Your task to perform on an android device: Check the new Jordans on Nike. Image 0: 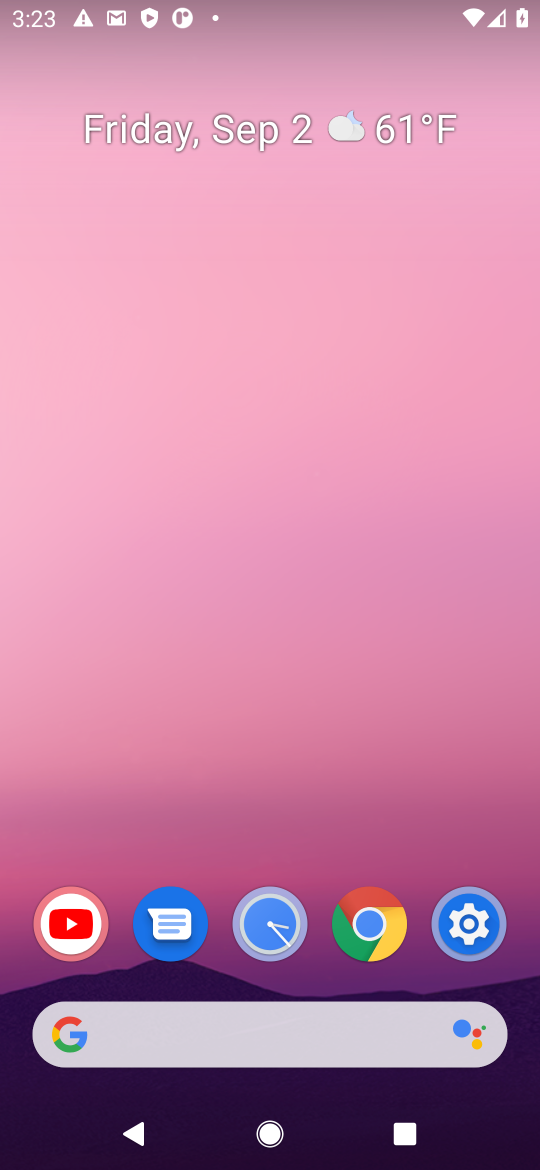
Step 0: press home button
Your task to perform on an android device: Check the new Jordans on Nike. Image 1: 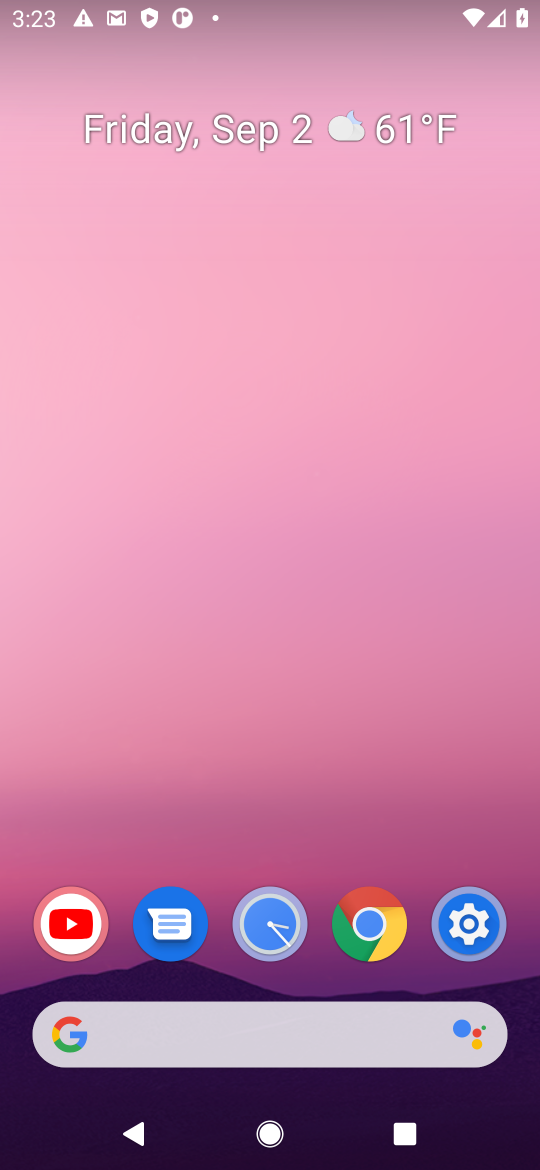
Step 1: click (392, 1036)
Your task to perform on an android device: Check the new Jordans on Nike. Image 2: 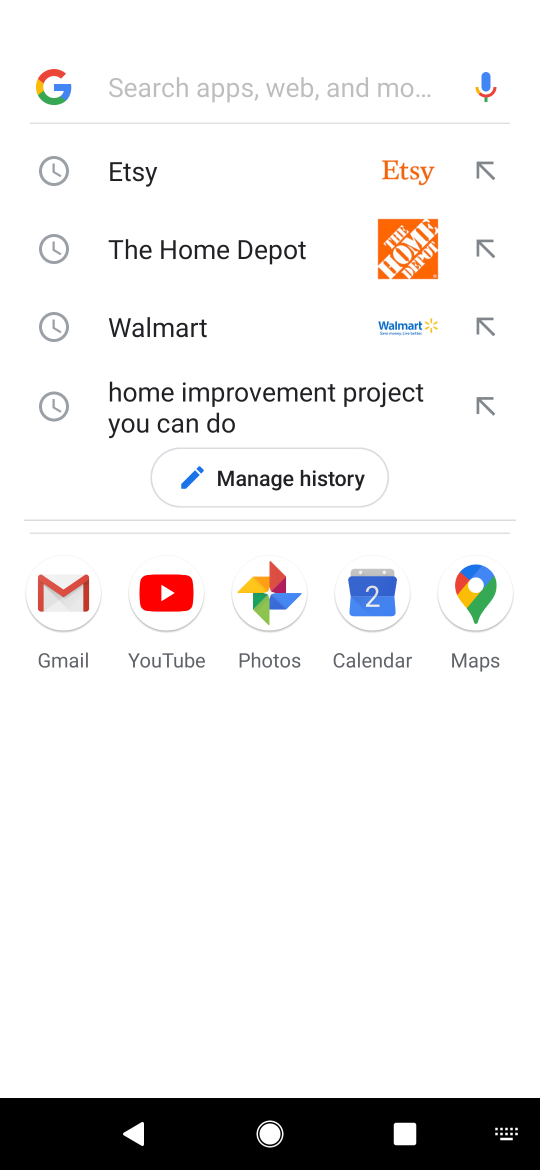
Step 2: type "nike "
Your task to perform on an android device: Check the new Jordans on Nike. Image 3: 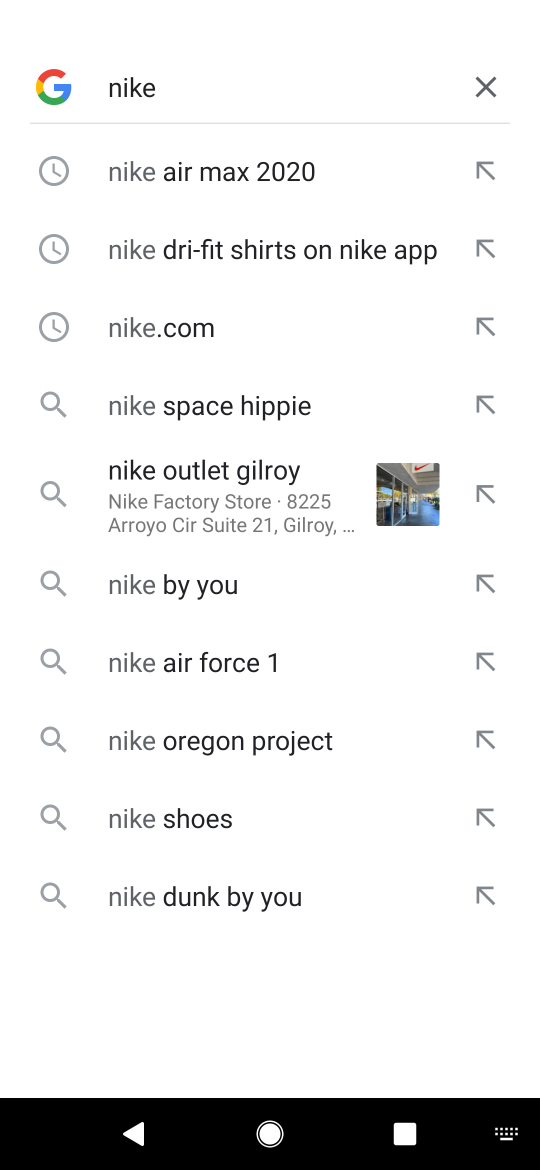
Step 3: click (206, 321)
Your task to perform on an android device: Check the new Jordans on Nike. Image 4: 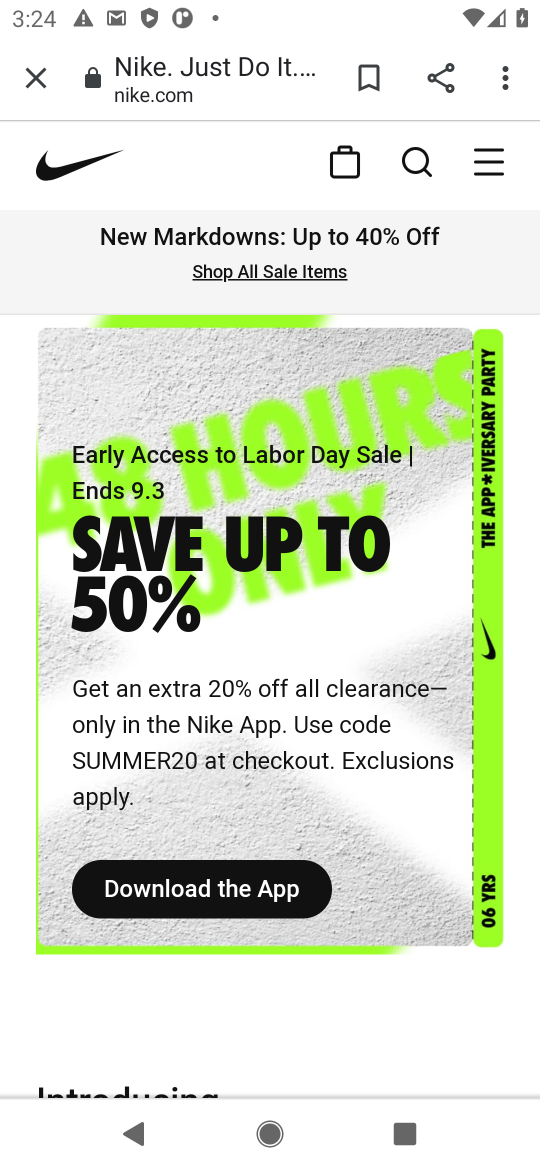
Step 4: click (412, 153)
Your task to perform on an android device: Check the new Jordans on Nike. Image 5: 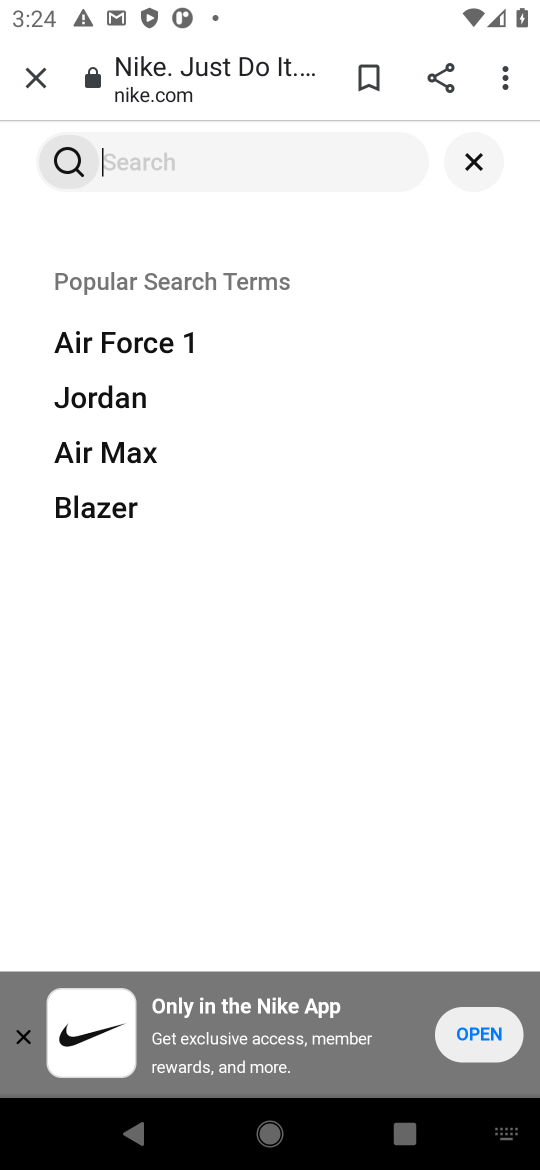
Step 5: click (112, 393)
Your task to perform on an android device: Check the new Jordans on Nike. Image 6: 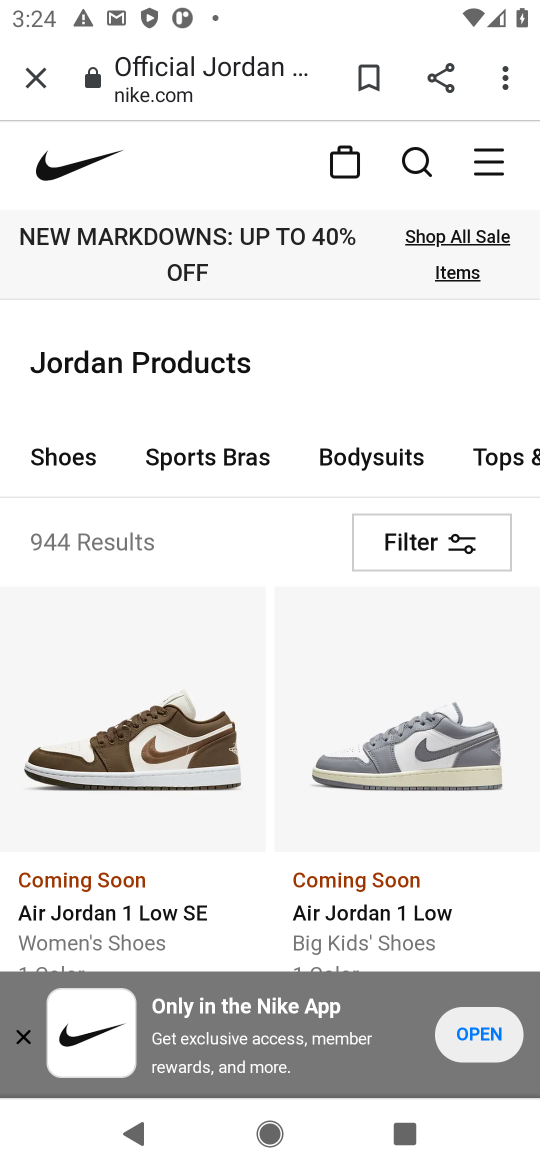
Step 6: task complete